Your task to perform on an android device: change text size in settings app Image 0: 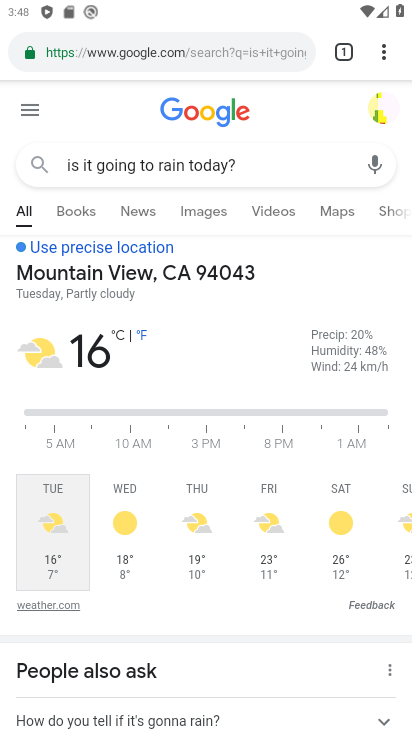
Step 0: task complete